Your task to perform on an android device: delete location history Image 0: 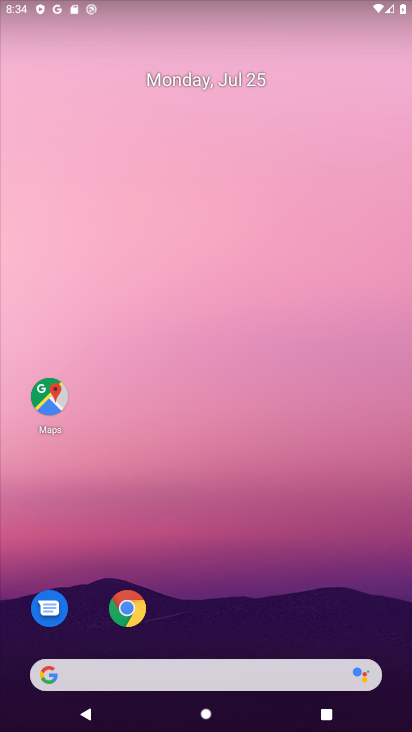
Step 0: drag from (227, 605) to (226, 130)
Your task to perform on an android device: delete location history Image 1: 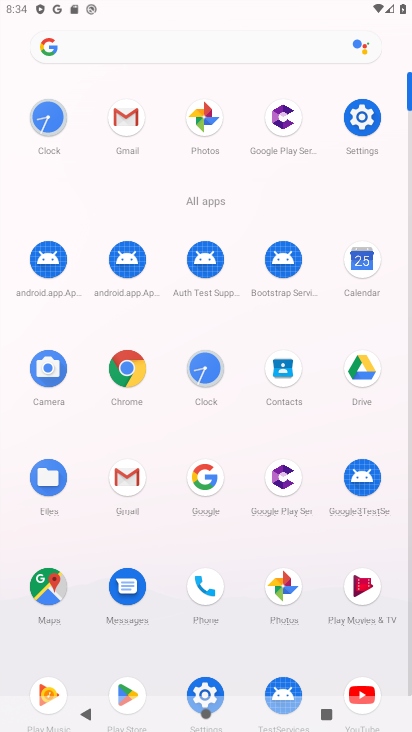
Step 1: click (48, 585)
Your task to perform on an android device: delete location history Image 2: 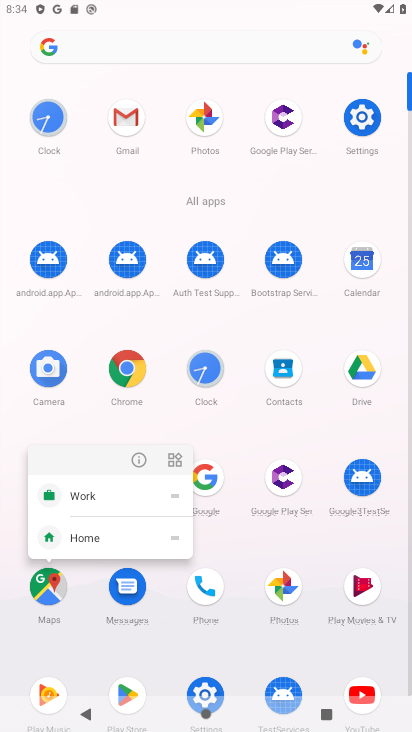
Step 2: click (48, 585)
Your task to perform on an android device: delete location history Image 3: 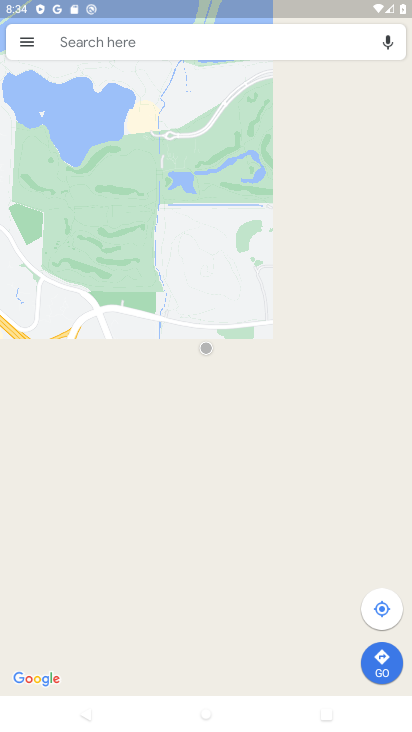
Step 3: click (23, 38)
Your task to perform on an android device: delete location history Image 4: 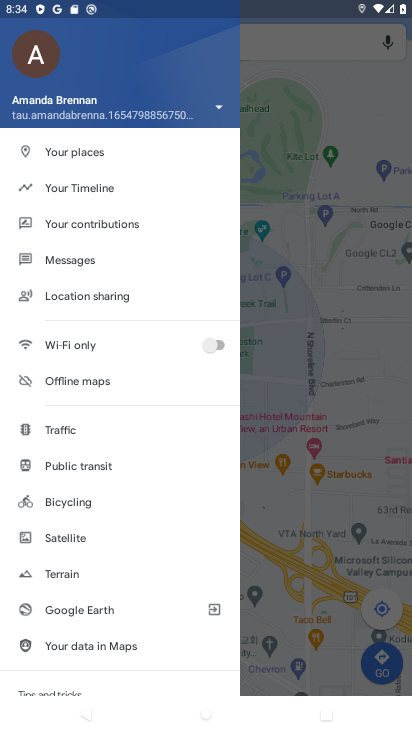
Step 4: click (87, 193)
Your task to perform on an android device: delete location history Image 5: 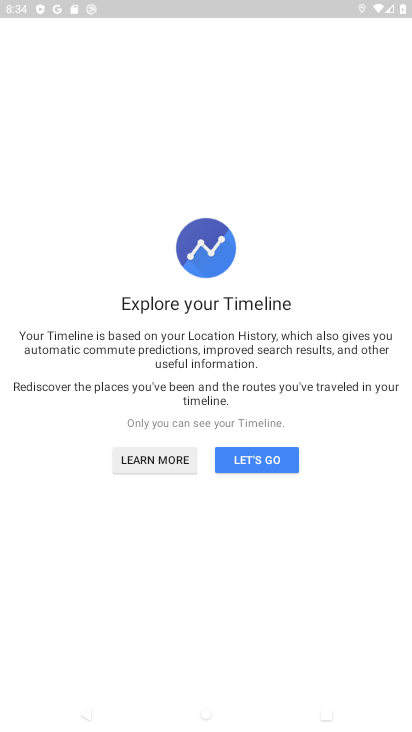
Step 5: click (246, 460)
Your task to perform on an android device: delete location history Image 6: 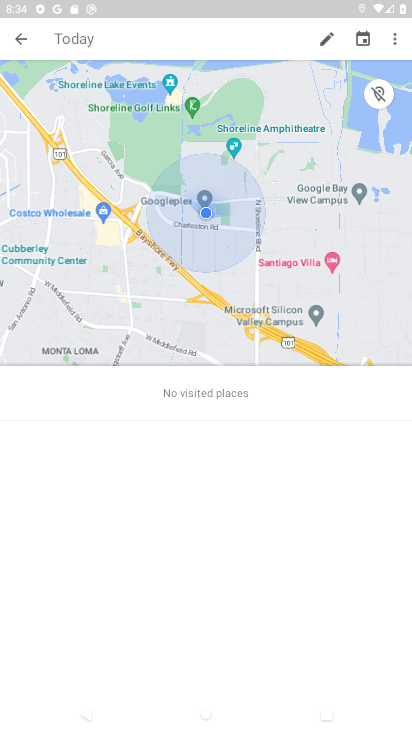
Step 6: click (391, 35)
Your task to perform on an android device: delete location history Image 7: 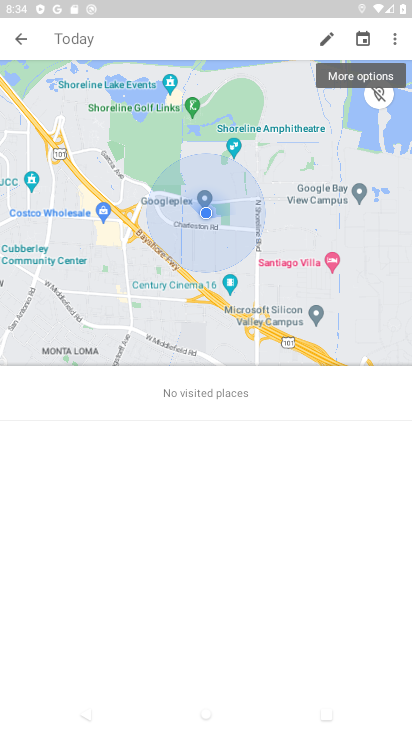
Step 7: click (402, 33)
Your task to perform on an android device: delete location history Image 8: 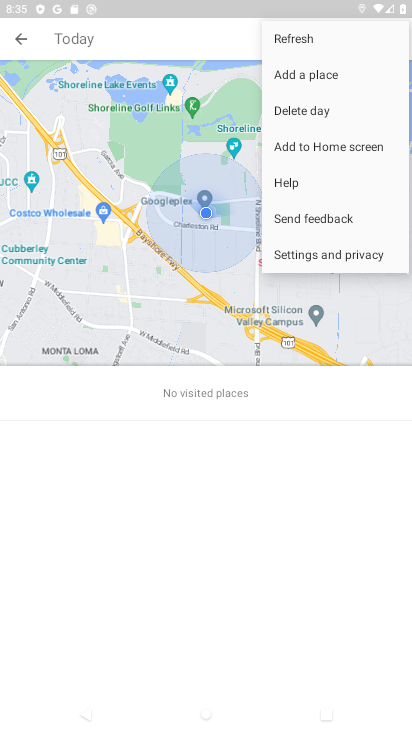
Step 8: click (315, 253)
Your task to perform on an android device: delete location history Image 9: 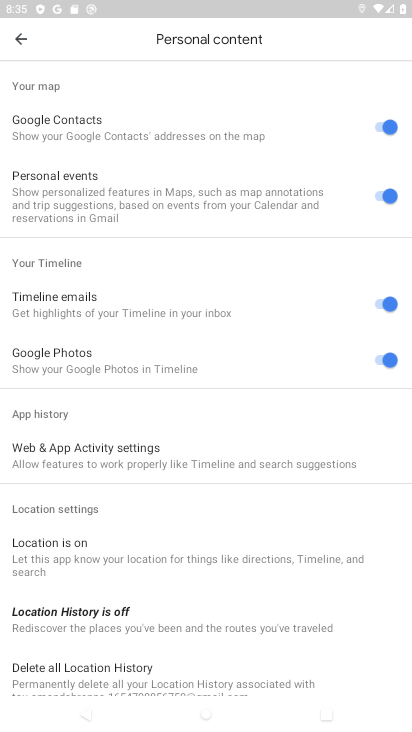
Step 9: drag from (161, 658) to (193, 385)
Your task to perform on an android device: delete location history Image 10: 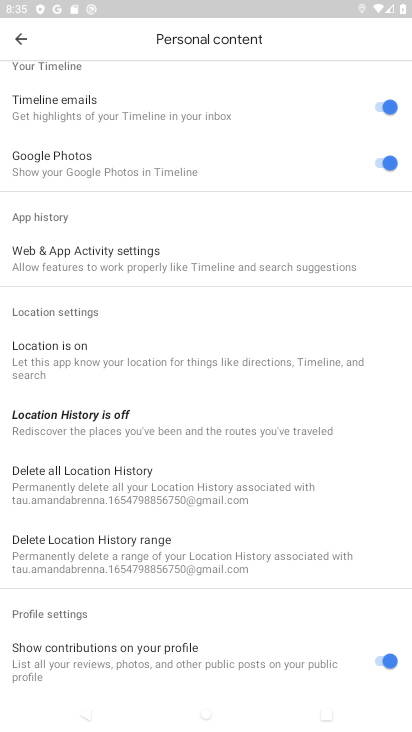
Step 10: click (144, 484)
Your task to perform on an android device: delete location history Image 11: 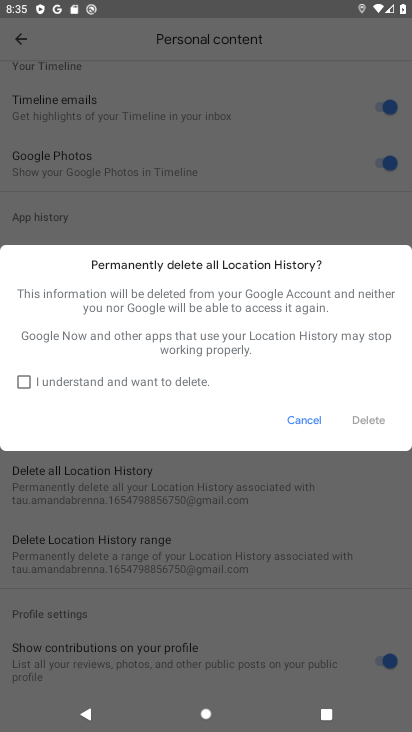
Step 11: click (28, 379)
Your task to perform on an android device: delete location history Image 12: 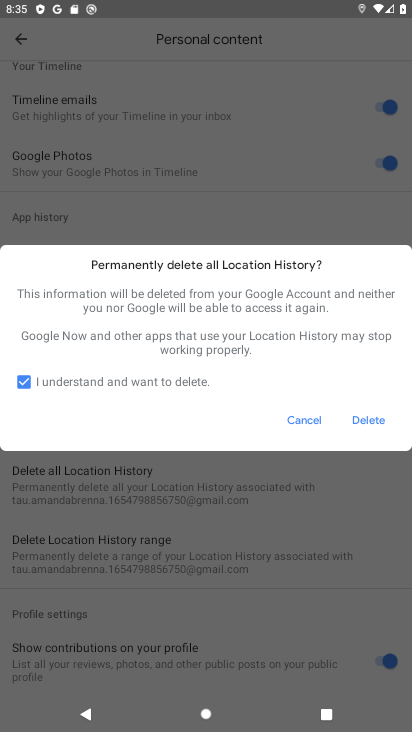
Step 12: click (362, 415)
Your task to perform on an android device: delete location history Image 13: 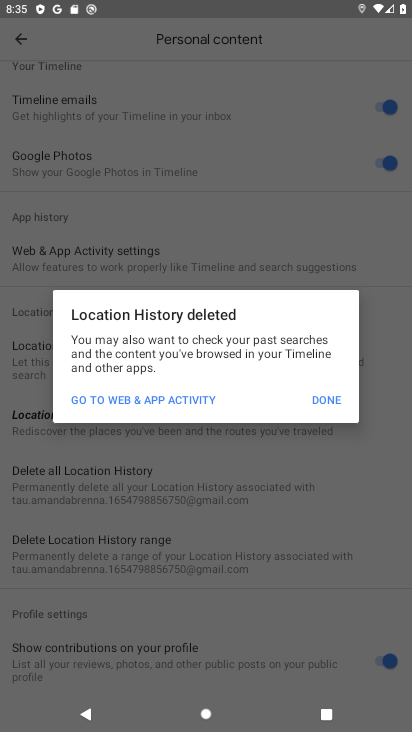
Step 13: click (340, 407)
Your task to perform on an android device: delete location history Image 14: 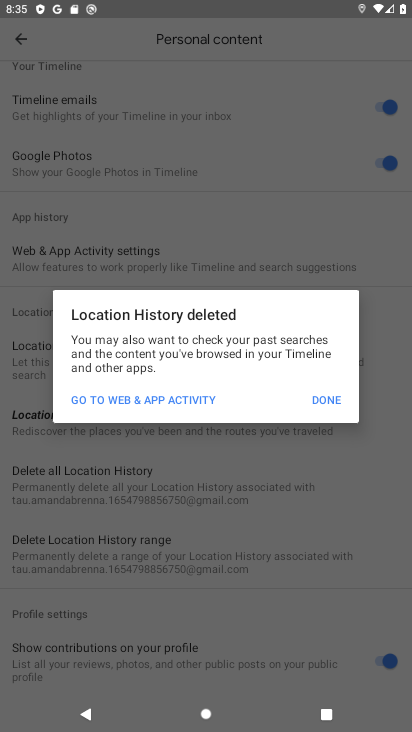
Step 14: click (340, 407)
Your task to perform on an android device: delete location history Image 15: 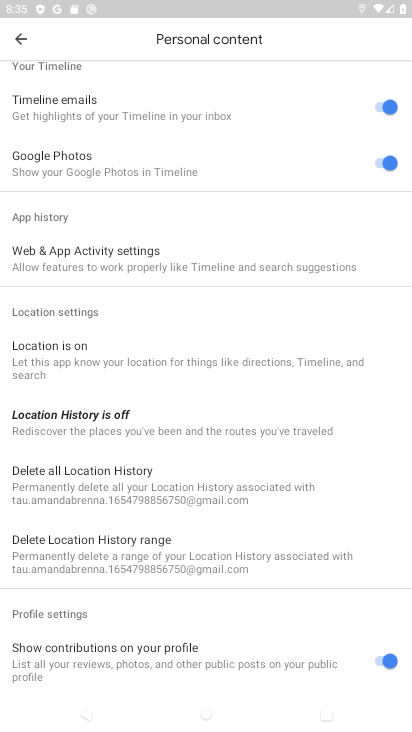
Step 15: task complete